Your task to perform on an android device: add a contact in the contacts app Image 0: 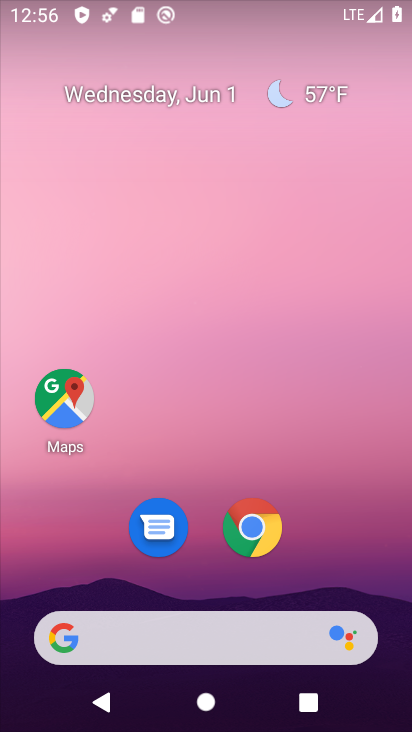
Step 0: drag from (217, 648) to (273, 301)
Your task to perform on an android device: add a contact in the contacts app Image 1: 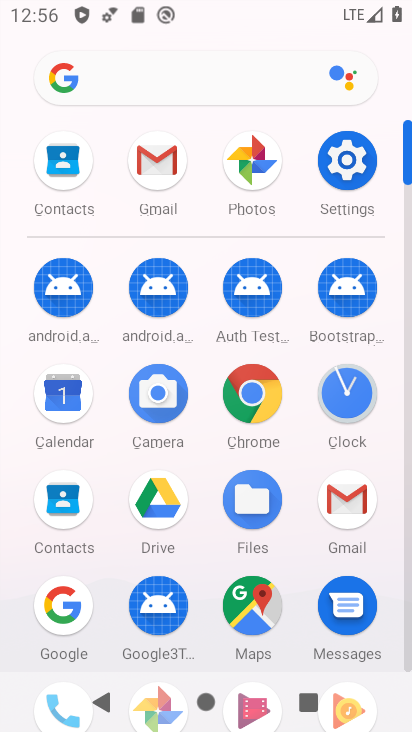
Step 1: click (81, 490)
Your task to perform on an android device: add a contact in the contacts app Image 2: 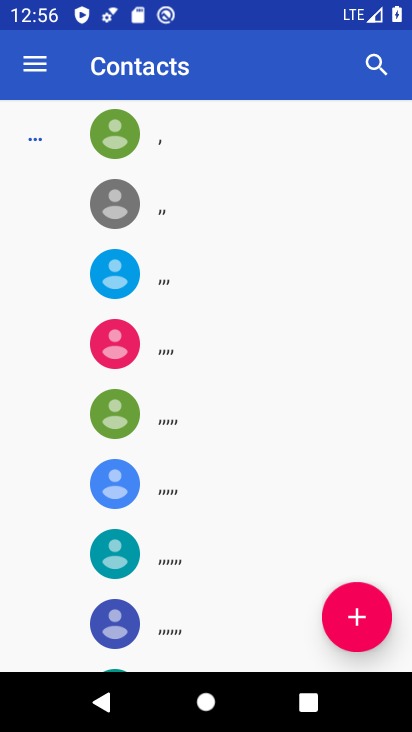
Step 2: click (347, 613)
Your task to perform on an android device: add a contact in the contacts app Image 3: 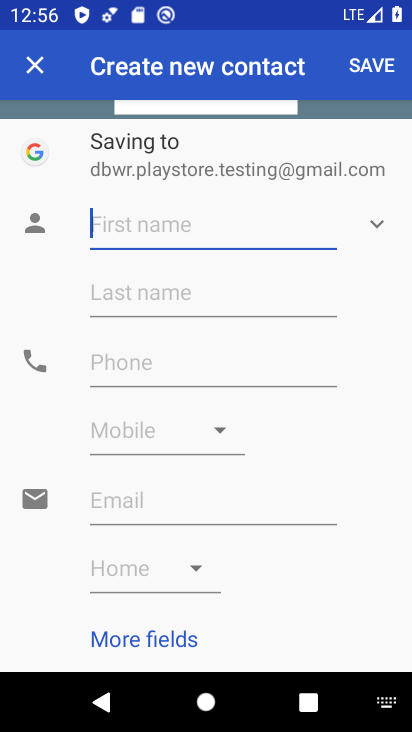
Step 3: click (237, 238)
Your task to perform on an android device: add a contact in the contacts app Image 4: 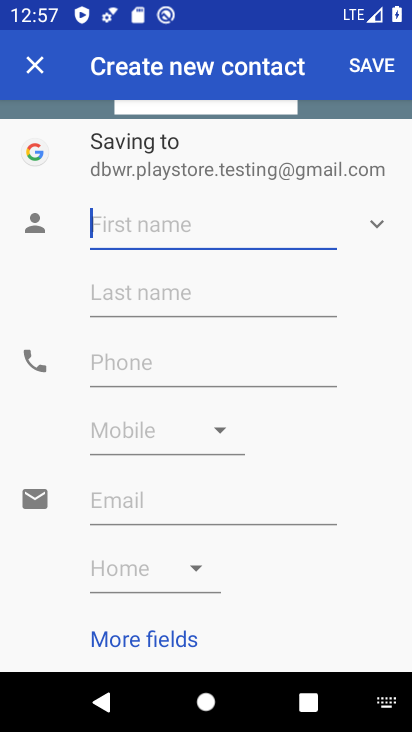
Step 4: type "jim"
Your task to perform on an android device: add a contact in the contacts app Image 5: 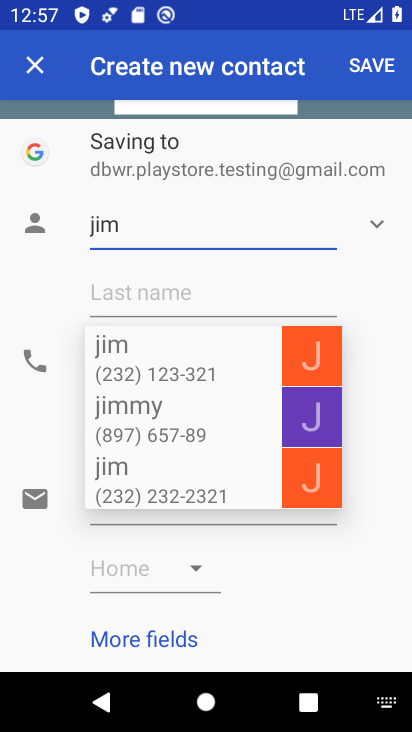
Step 5: click (241, 301)
Your task to perform on an android device: add a contact in the contacts app Image 6: 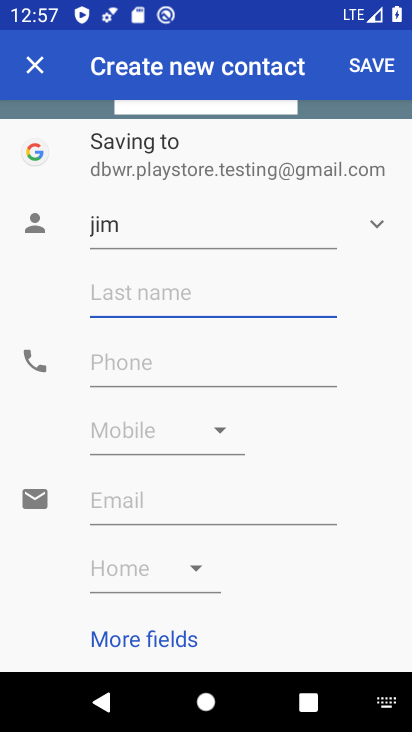
Step 6: type "hopper"
Your task to perform on an android device: add a contact in the contacts app Image 7: 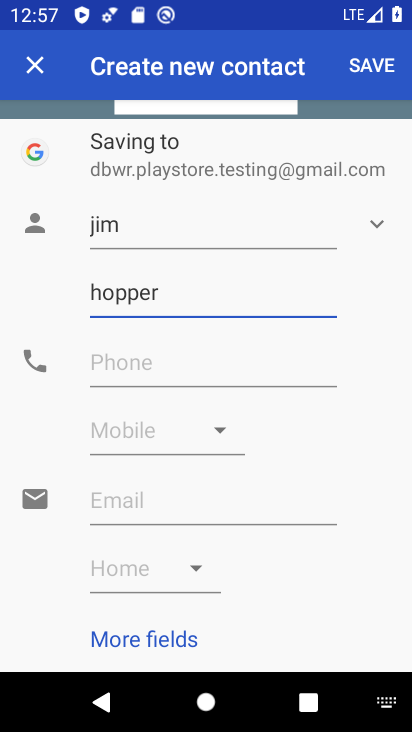
Step 7: click (123, 374)
Your task to perform on an android device: add a contact in the contacts app Image 8: 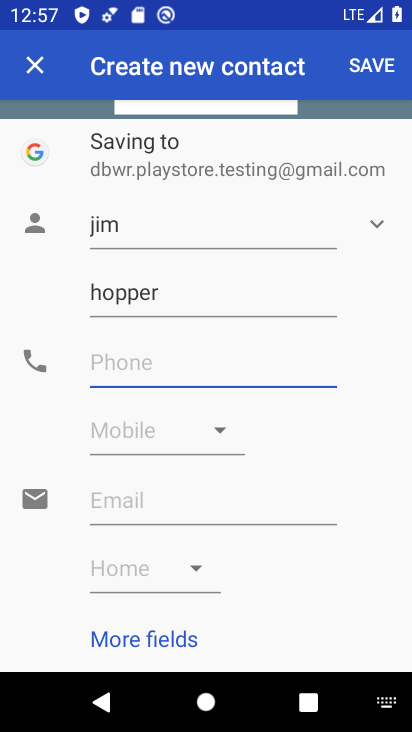
Step 8: type "78756"
Your task to perform on an android device: add a contact in the contacts app Image 9: 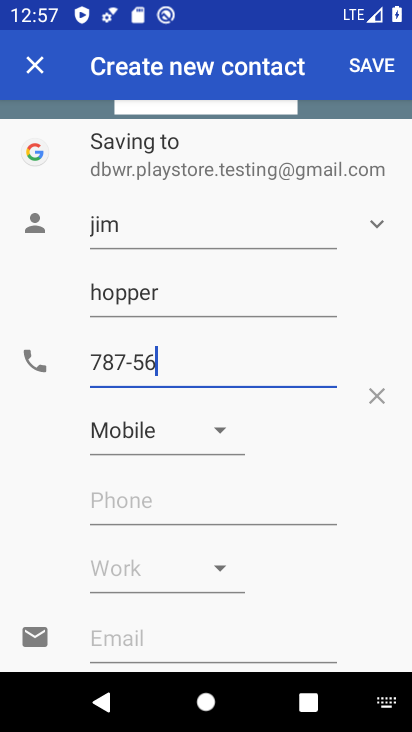
Step 9: click (382, 65)
Your task to perform on an android device: add a contact in the contacts app Image 10: 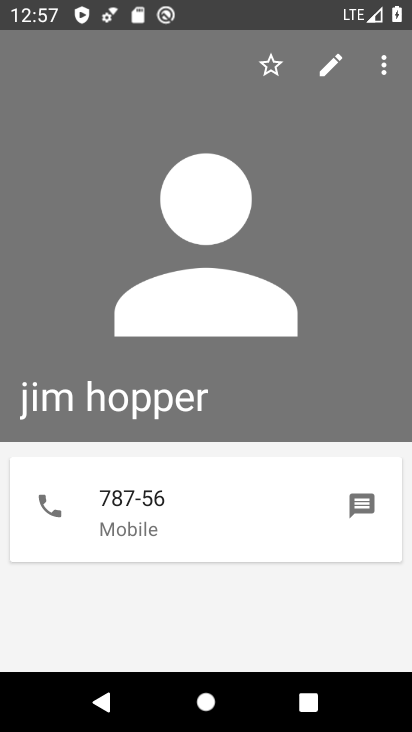
Step 10: task complete